Your task to perform on an android device: Go to eBay Image 0: 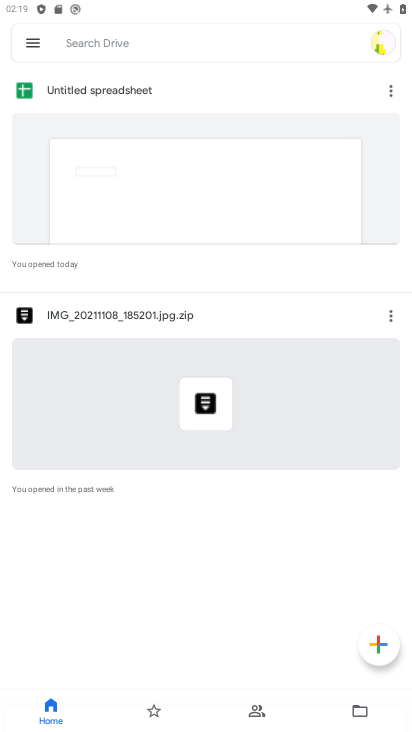
Step 0: press home button
Your task to perform on an android device: Go to eBay Image 1: 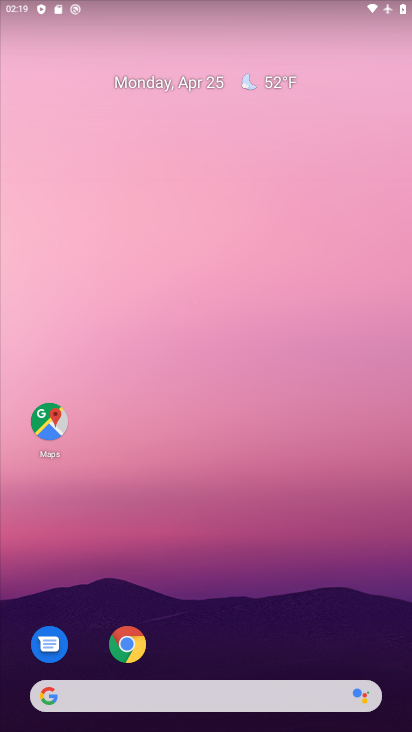
Step 1: drag from (279, 621) to (241, 5)
Your task to perform on an android device: Go to eBay Image 2: 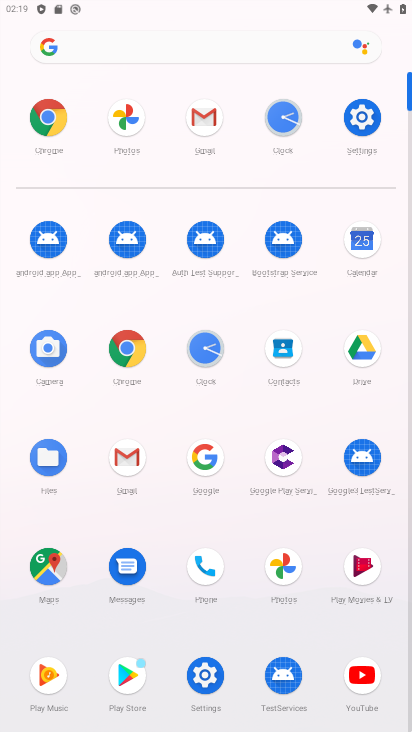
Step 2: click (364, 119)
Your task to perform on an android device: Go to eBay Image 3: 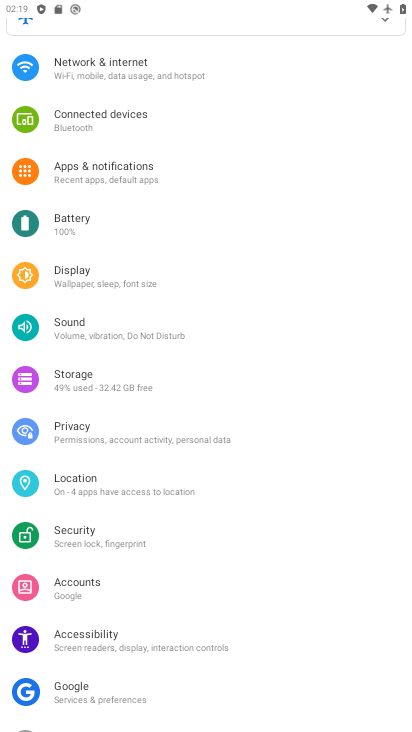
Step 3: press home button
Your task to perform on an android device: Go to eBay Image 4: 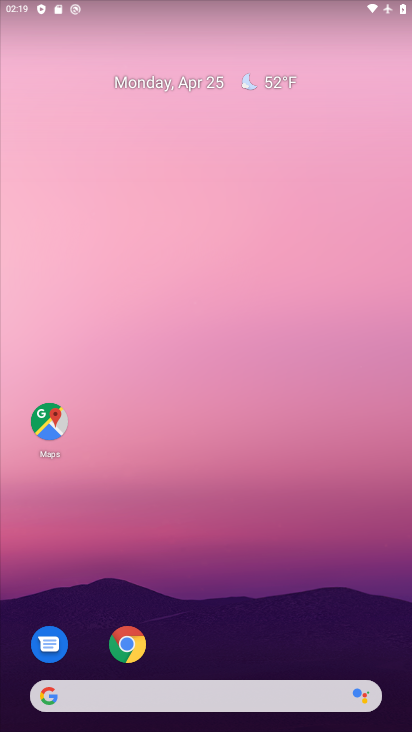
Step 4: click (113, 652)
Your task to perform on an android device: Go to eBay Image 5: 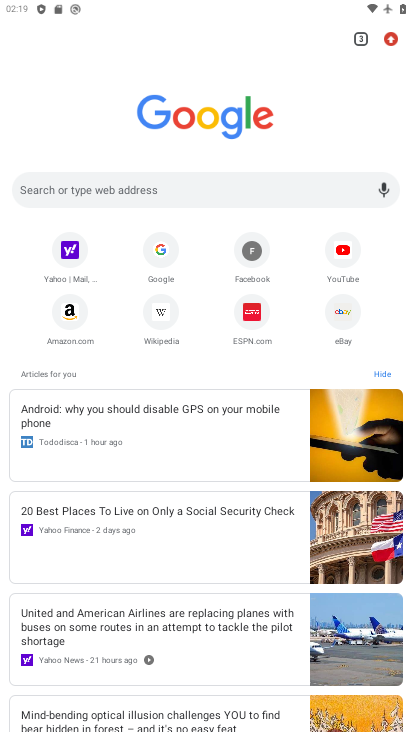
Step 5: click (198, 184)
Your task to perform on an android device: Go to eBay Image 6: 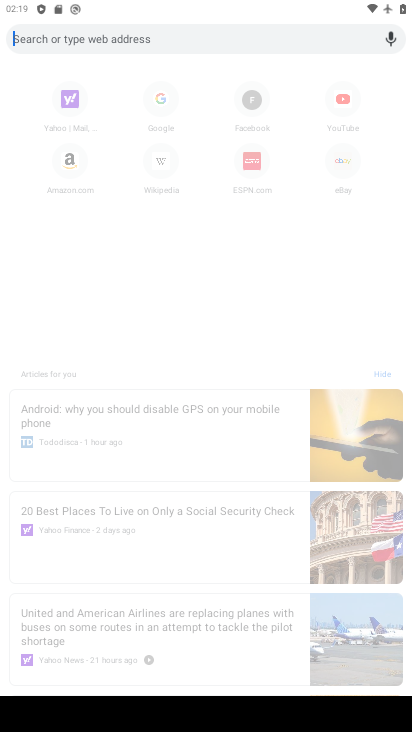
Step 6: type "ebay.com"
Your task to perform on an android device: Go to eBay Image 7: 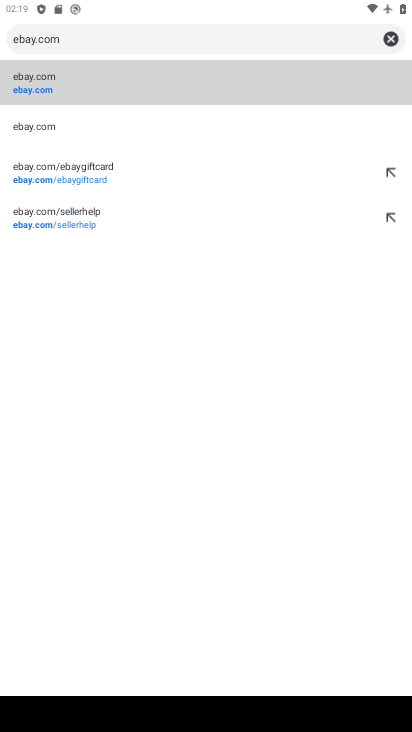
Step 7: click (36, 83)
Your task to perform on an android device: Go to eBay Image 8: 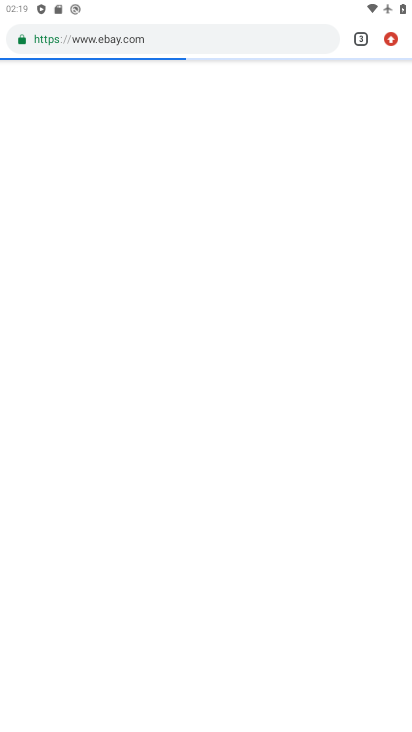
Step 8: task complete